Your task to perform on an android device: check data usage Image 0: 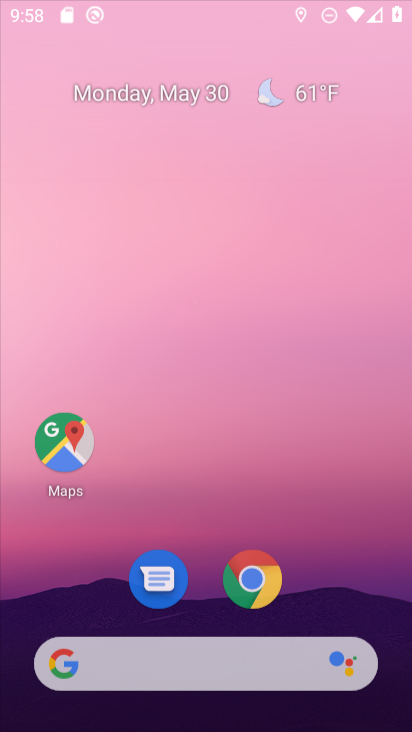
Step 0: drag from (232, 627) to (74, 26)
Your task to perform on an android device: check data usage Image 1: 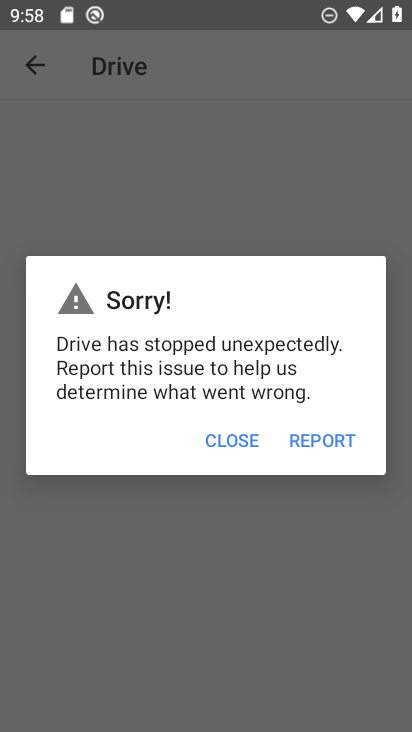
Step 1: press home button
Your task to perform on an android device: check data usage Image 2: 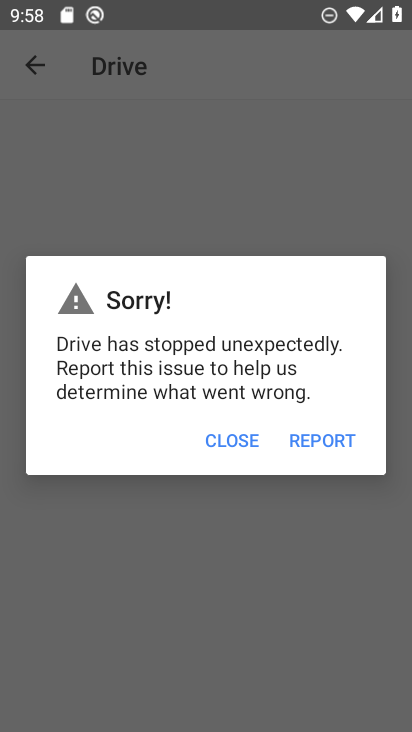
Step 2: drag from (74, 26) to (192, 729)
Your task to perform on an android device: check data usage Image 3: 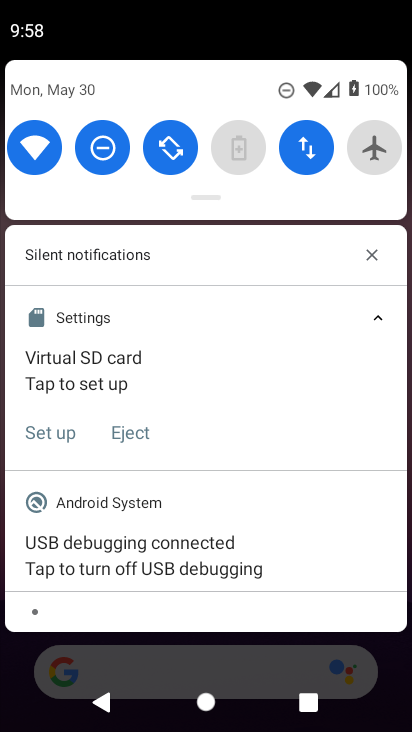
Step 3: press home button
Your task to perform on an android device: check data usage Image 4: 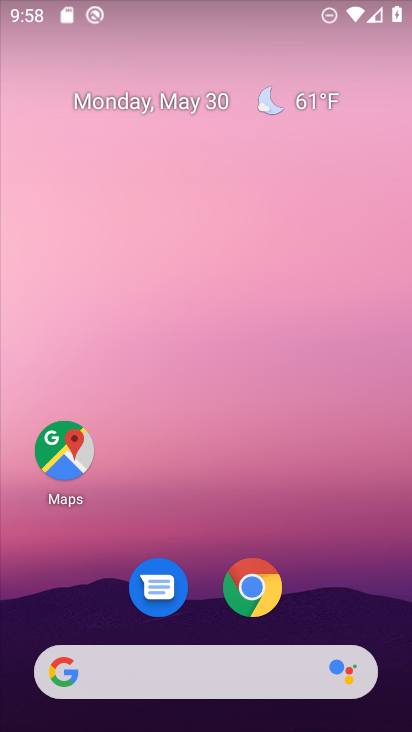
Step 4: drag from (212, 632) to (212, 16)
Your task to perform on an android device: check data usage Image 5: 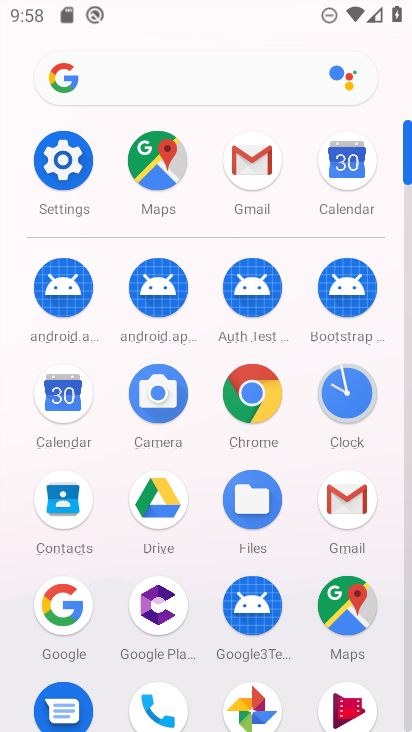
Step 5: click (71, 181)
Your task to perform on an android device: check data usage Image 6: 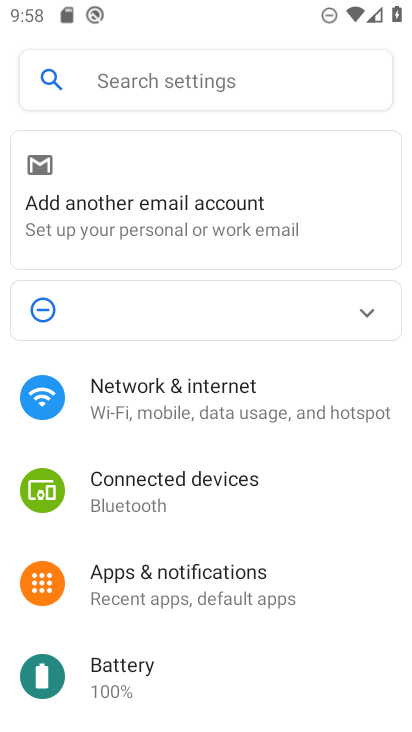
Step 6: click (202, 408)
Your task to perform on an android device: check data usage Image 7: 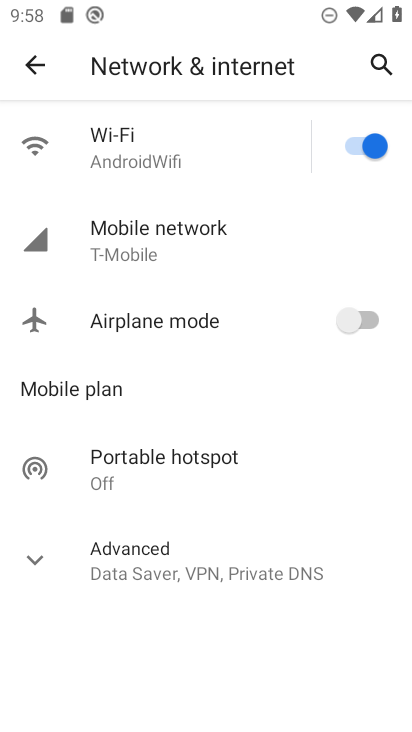
Step 7: click (149, 249)
Your task to perform on an android device: check data usage Image 8: 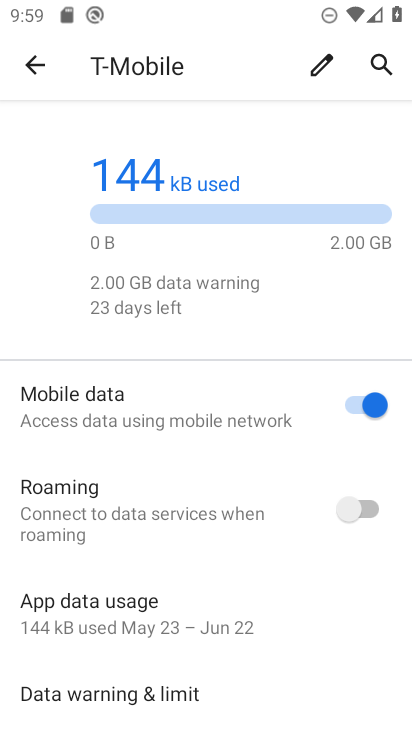
Step 8: task complete